Your task to perform on an android device: Show me recent news Image 0: 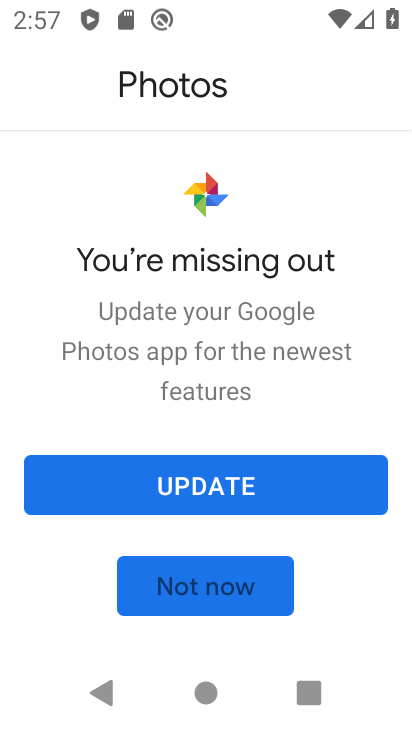
Step 0: press home button
Your task to perform on an android device: Show me recent news Image 1: 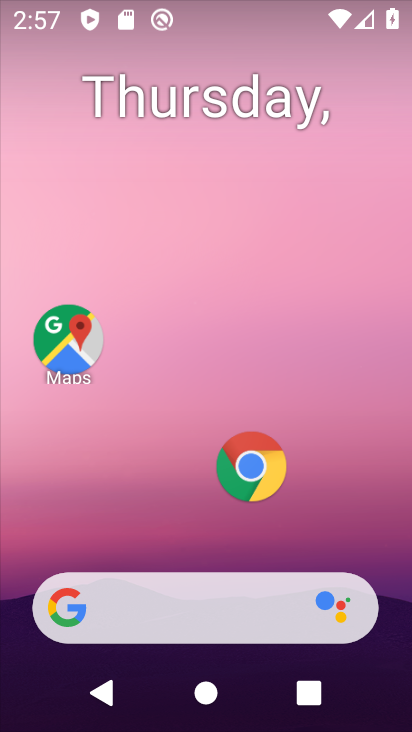
Step 1: drag from (193, 540) to (221, 202)
Your task to perform on an android device: Show me recent news Image 2: 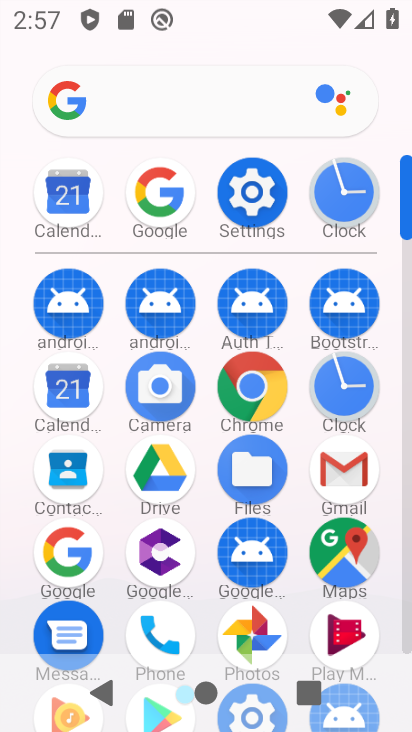
Step 2: click (169, 212)
Your task to perform on an android device: Show me recent news Image 3: 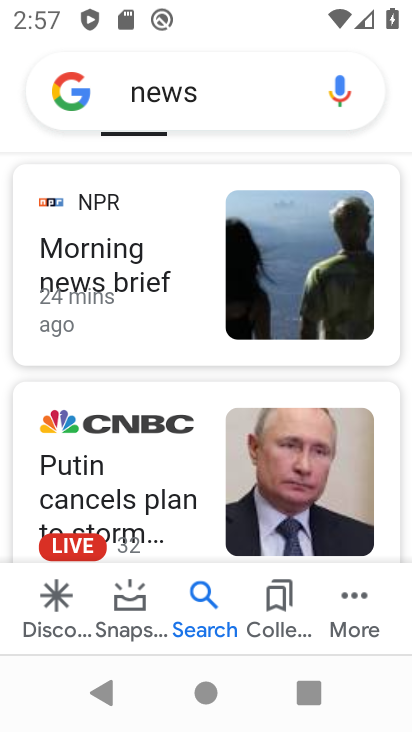
Step 3: click (228, 85)
Your task to perform on an android device: Show me recent news Image 4: 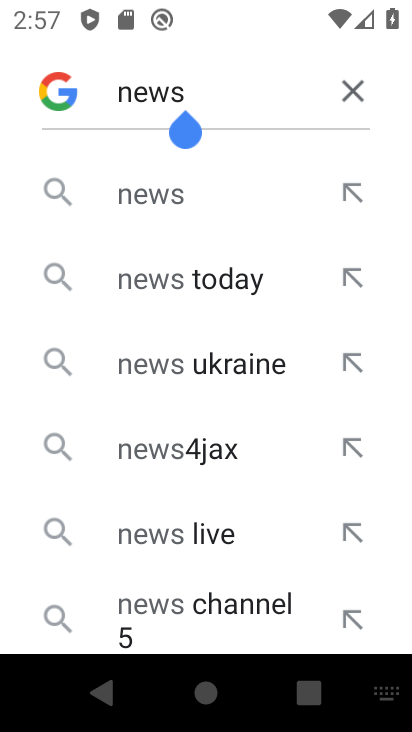
Step 4: click (356, 89)
Your task to perform on an android device: Show me recent news Image 5: 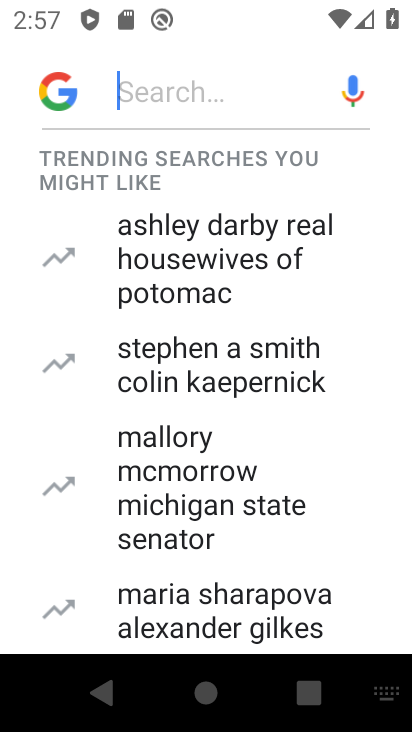
Step 5: type "recent news"
Your task to perform on an android device: Show me recent news Image 6: 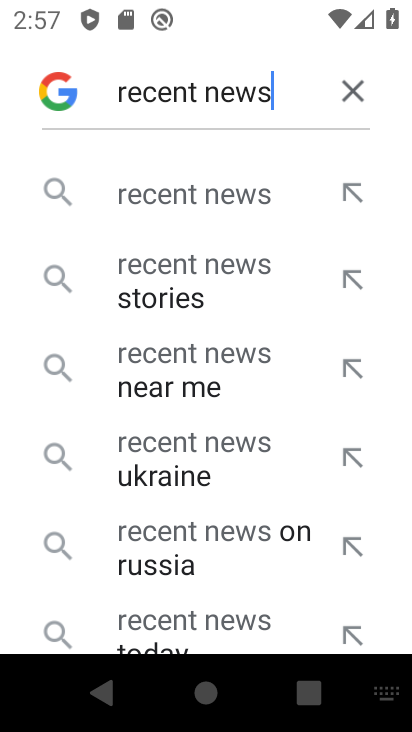
Step 6: click (228, 183)
Your task to perform on an android device: Show me recent news Image 7: 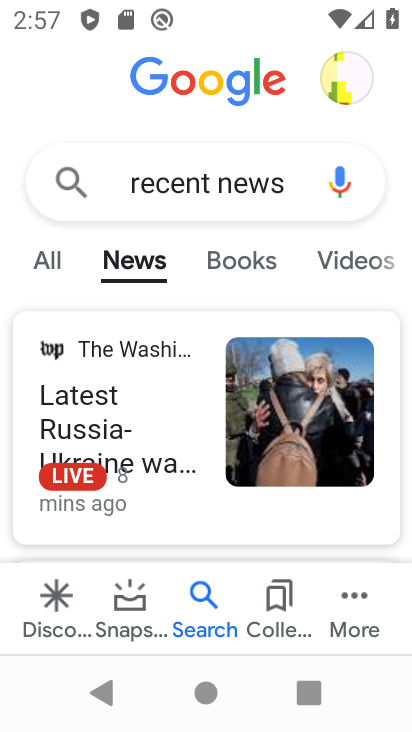
Step 7: task complete